Your task to perform on an android device: Show me popular videos on Youtube Image 0: 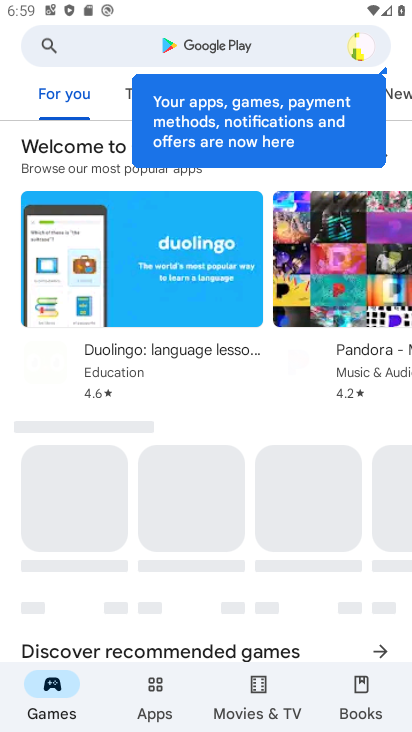
Step 0: press home button
Your task to perform on an android device: Show me popular videos on Youtube Image 1: 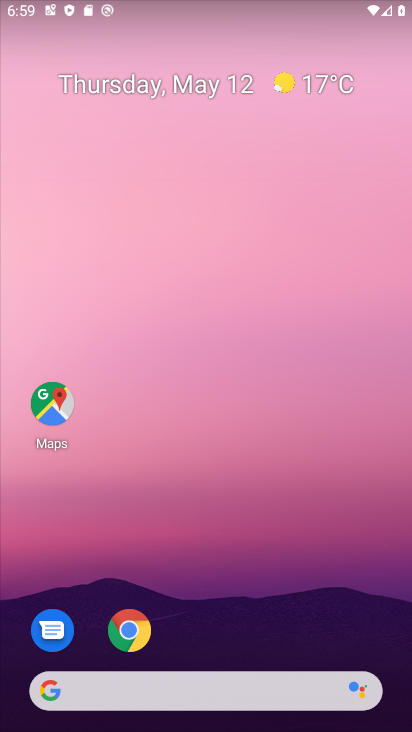
Step 1: drag from (348, 592) to (194, 0)
Your task to perform on an android device: Show me popular videos on Youtube Image 2: 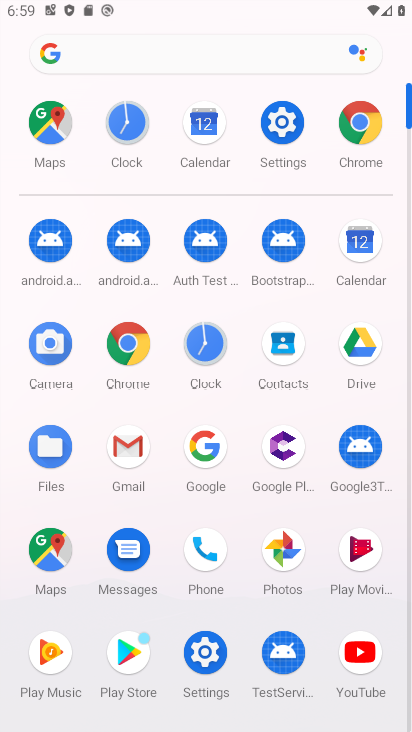
Step 2: click (344, 644)
Your task to perform on an android device: Show me popular videos on Youtube Image 3: 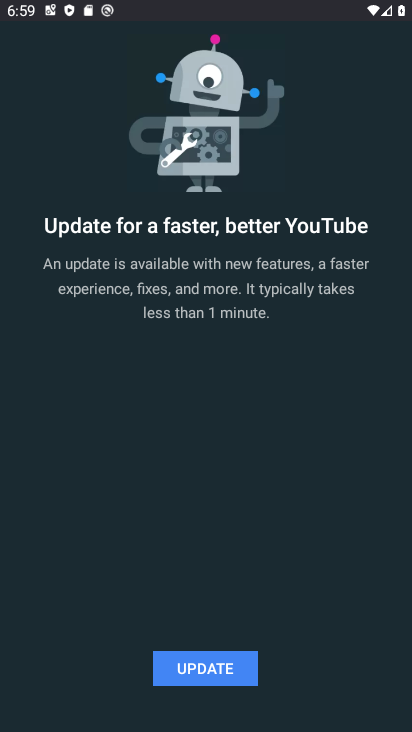
Step 3: click (210, 665)
Your task to perform on an android device: Show me popular videos on Youtube Image 4: 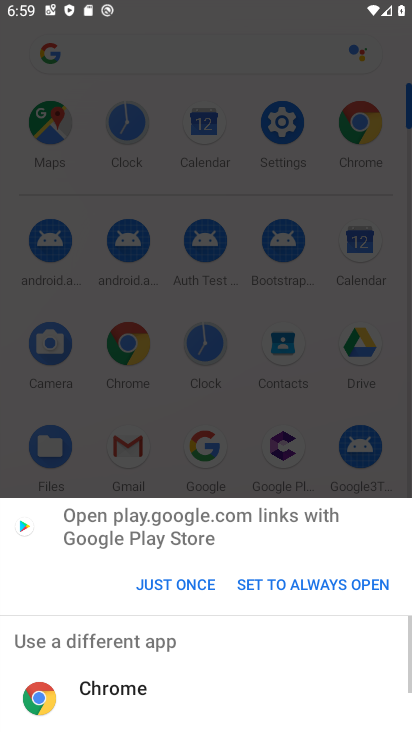
Step 4: drag from (184, 581) to (220, 581)
Your task to perform on an android device: Show me popular videos on Youtube Image 5: 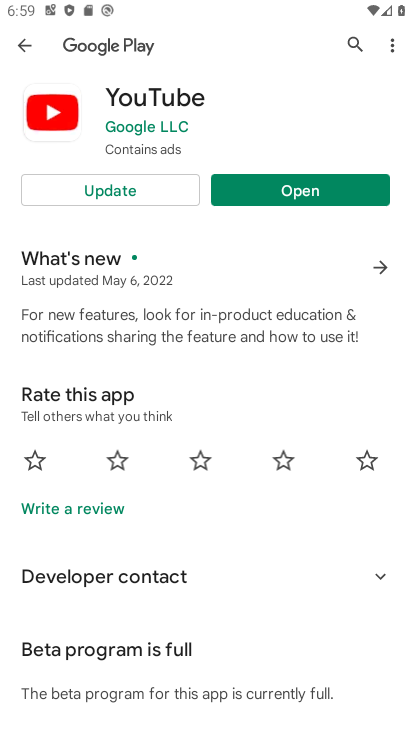
Step 5: click (99, 178)
Your task to perform on an android device: Show me popular videos on Youtube Image 6: 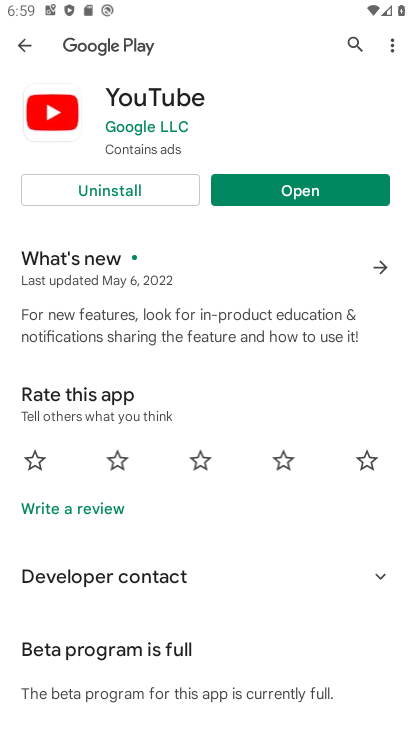
Step 6: click (274, 180)
Your task to perform on an android device: Show me popular videos on Youtube Image 7: 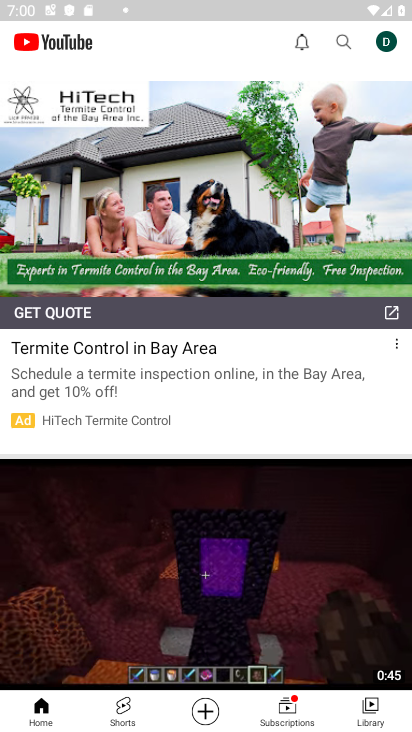
Step 7: task complete